Your task to perform on an android device: change notification settings in the gmail app Image 0: 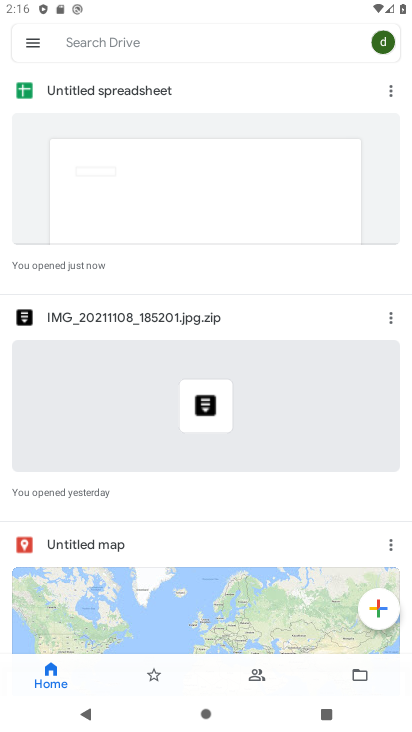
Step 0: press home button
Your task to perform on an android device: change notification settings in the gmail app Image 1: 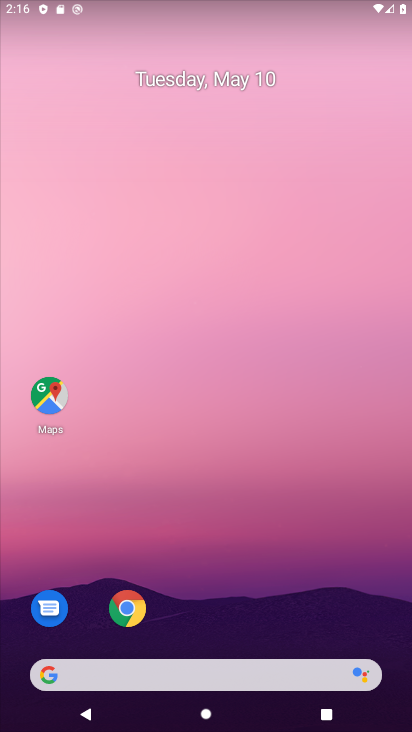
Step 1: drag from (383, 639) to (357, 116)
Your task to perform on an android device: change notification settings in the gmail app Image 2: 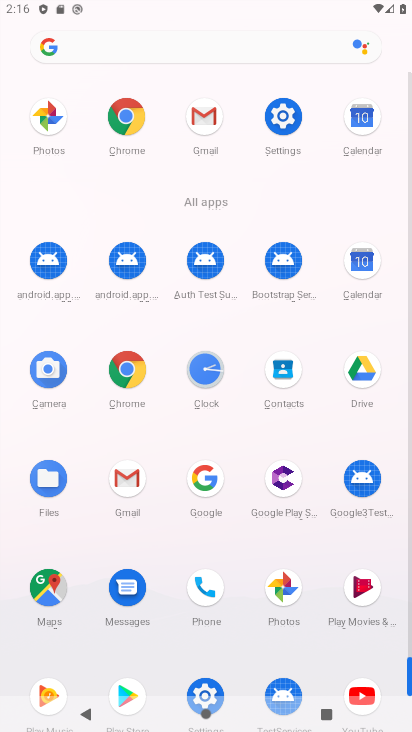
Step 2: click (123, 475)
Your task to perform on an android device: change notification settings in the gmail app Image 3: 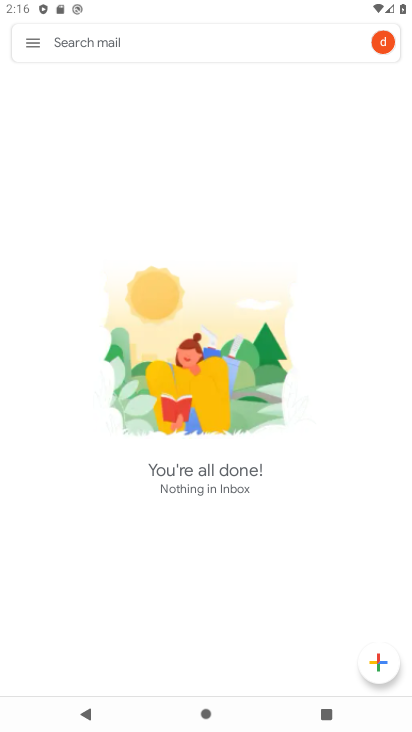
Step 3: click (31, 42)
Your task to perform on an android device: change notification settings in the gmail app Image 4: 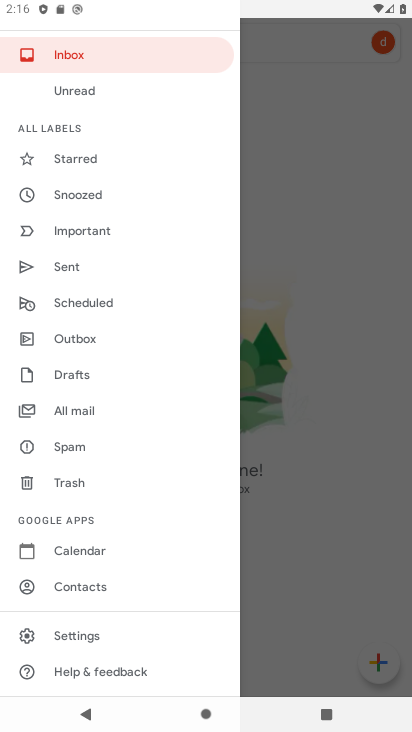
Step 4: click (82, 639)
Your task to perform on an android device: change notification settings in the gmail app Image 5: 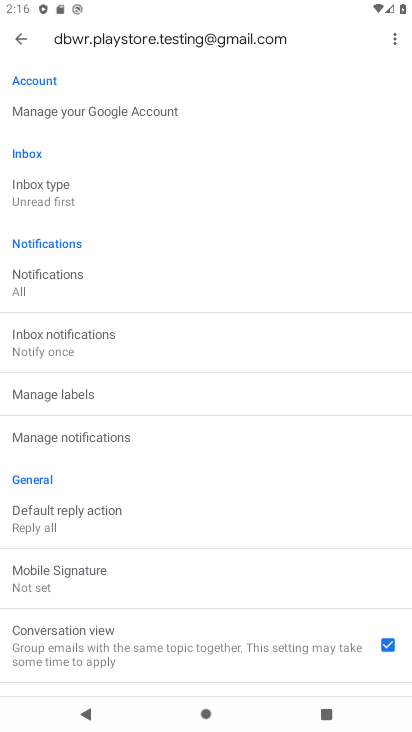
Step 5: click (60, 437)
Your task to perform on an android device: change notification settings in the gmail app Image 6: 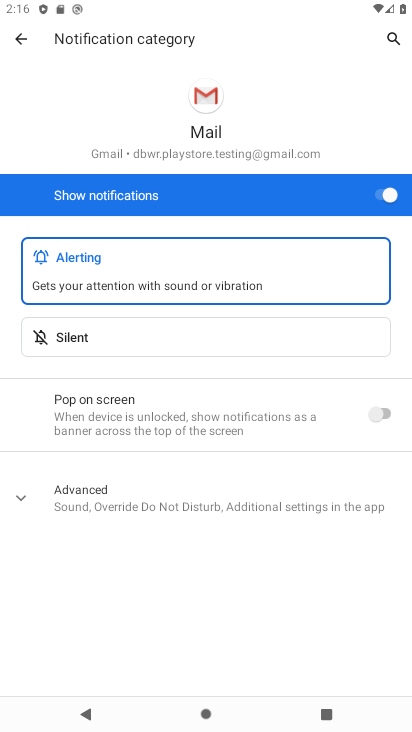
Step 6: click (376, 194)
Your task to perform on an android device: change notification settings in the gmail app Image 7: 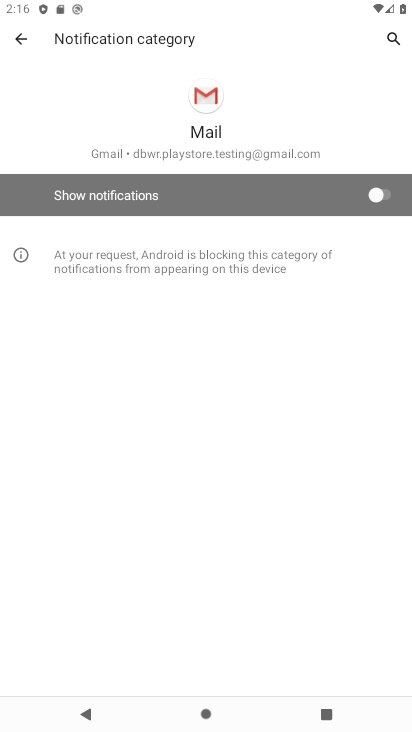
Step 7: task complete